Your task to perform on an android device: Open Android settings Image 0: 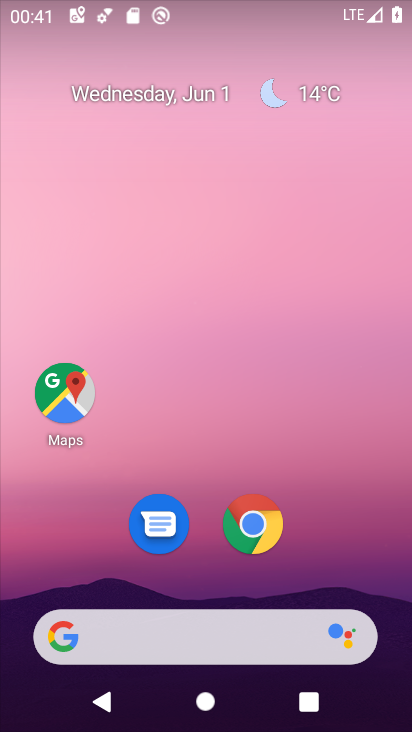
Step 0: drag from (331, 526) to (312, 13)
Your task to perform on an android device: Open Android settings Image 1: 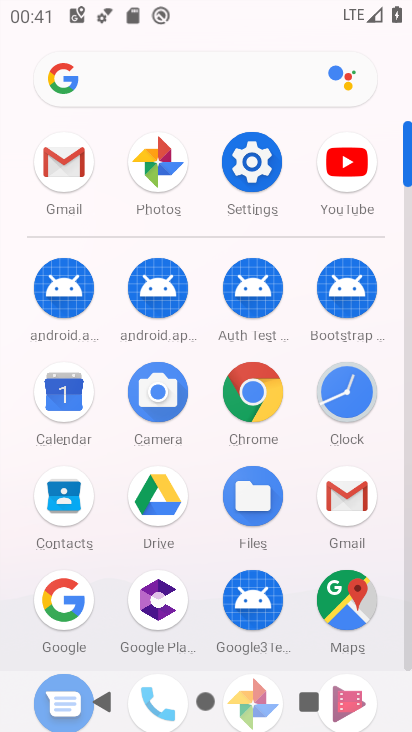
Step 1: click (263, 145)
Your task to perform on an android device: Open Android settings Image 2: 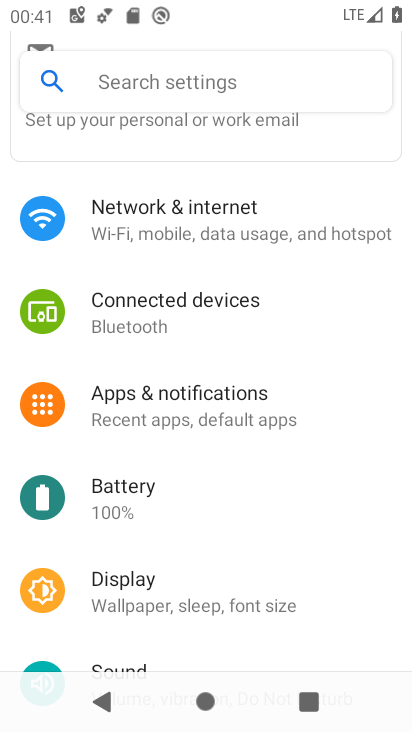
Step 2: drag from (227, 597) to (240, 6)
Your task to perform on an android device: Open Android settings Image 3: 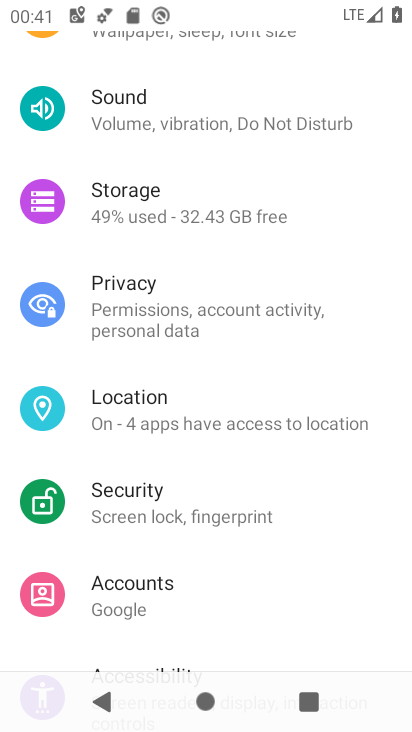
Step 3: drag from (215, 465) to (236, 26)
Your task to perform on an android device: Open Android settings Image 4: 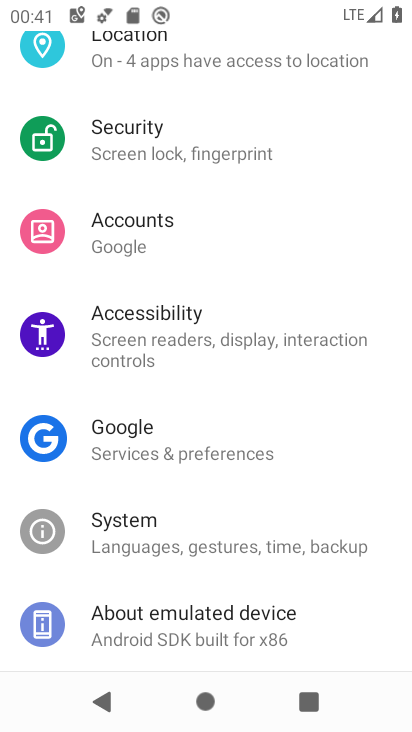
Step 4: click (210, 626)
Your task to perform on an android device: Open Android settings Image 5: 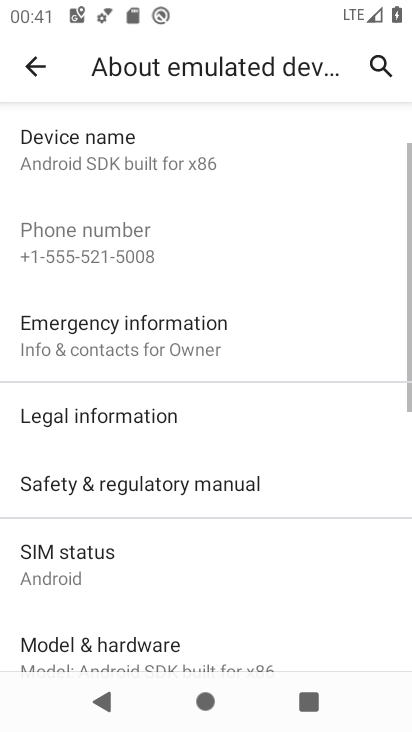
Step 5: task complete